Your task to perform on an android device: add a contact in the contacts app Image 0: 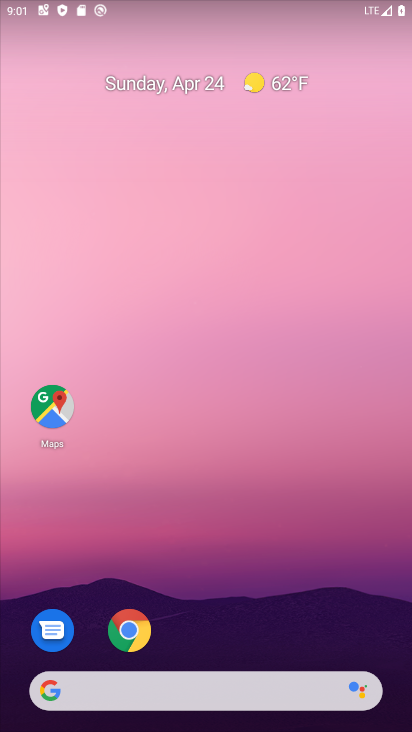
Step 0: drag from (258, 504) to (136, 2)
Your task to perform on an android device: add a contact in the contacts app Image 1: 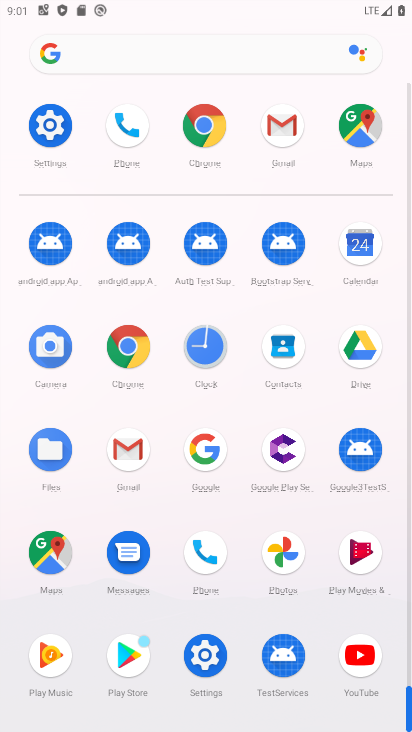
Step 1: drag from (8, 533) to (14, 260)
Your task to perform on an android device: add a contact in the contacts app Image 2: 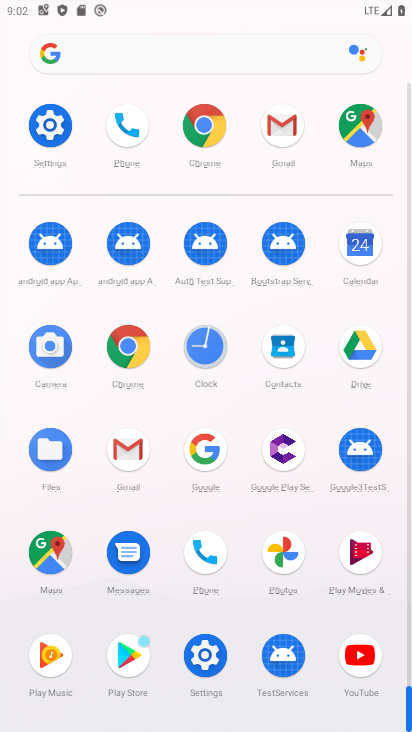
Step 2: click (279, 340)
Your task to perform on an android device: add a contact in the contacts app Image 3: 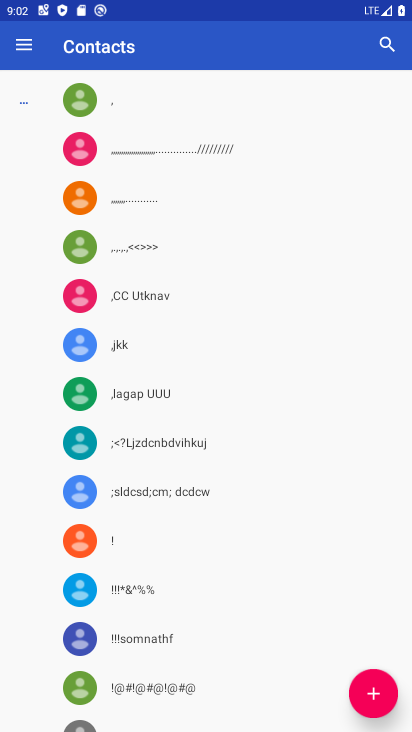
Step 3: click (381, 706)
Your task to perform on an android device: add a contact in the contacts app Image 4: 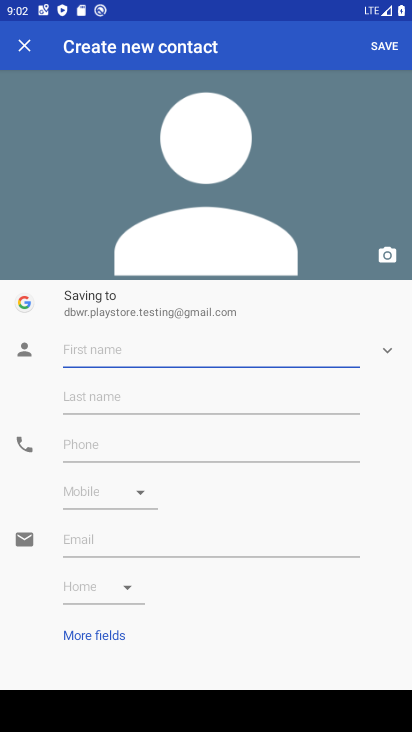
Step 4: type "LKJ"
Your task to perform on an android device: add a contact in the contacts app Image 5: 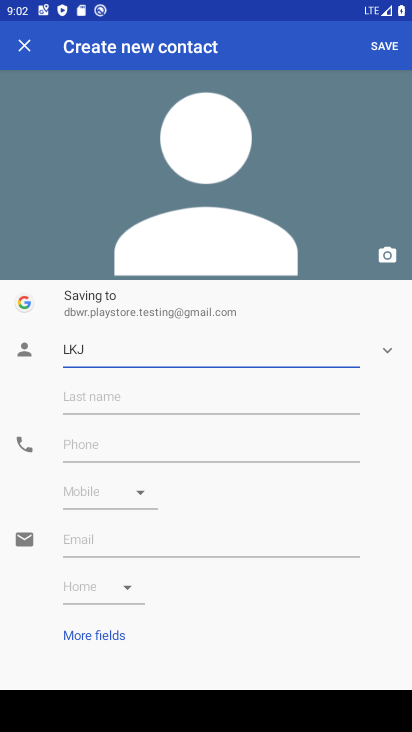
Step 5: click (174, 434)
Your task to perform on an android device: add a contact in the contacts app Image 6: 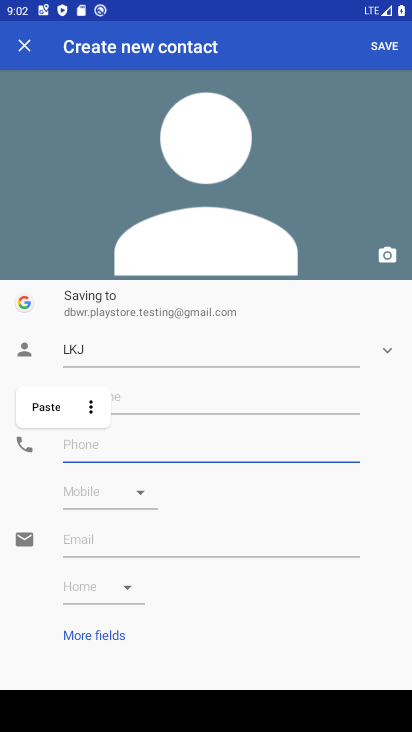
Step 6: type "68743545678"
Your task to perform on an android device: add a contact in the contacts app Image 7: 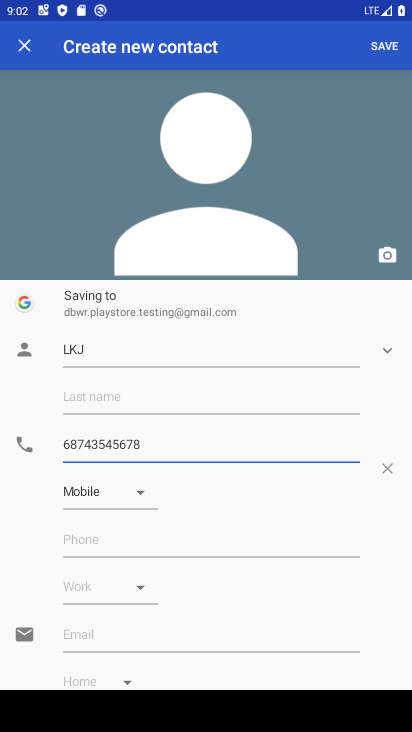
Step 7: click (390, 39)
Your task to perform on an android device: add a contact in the contacts app Image 8: 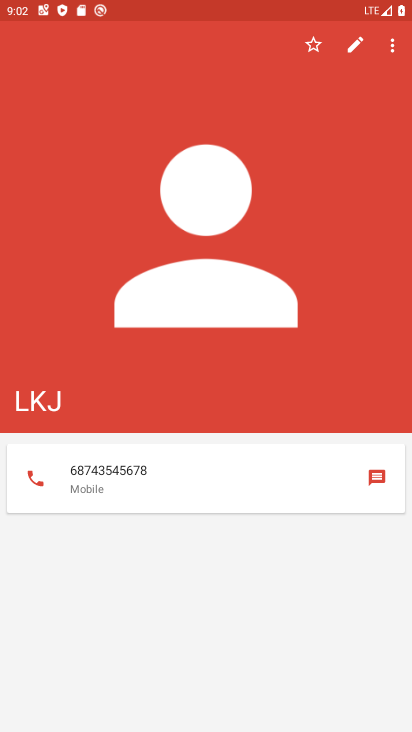
Step 8: task complete